Your task to perform on an android device: stop showing notifications on the lock screen Image 0: 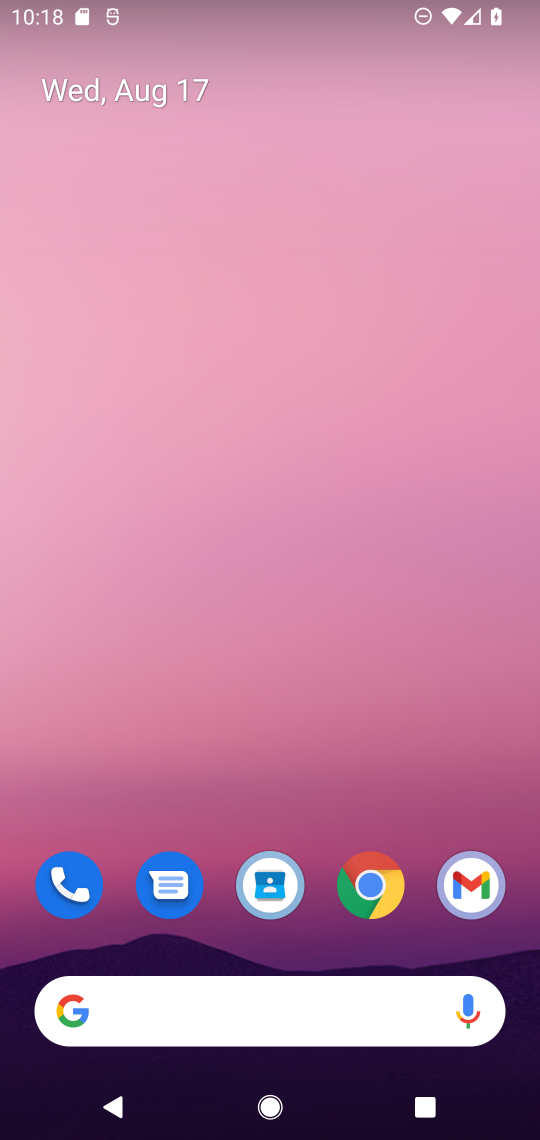
Step 0: drag from (409, 947) to (386, 135)
Your task to perform on an android device: stop showing notifications on the lock screen Image 1: 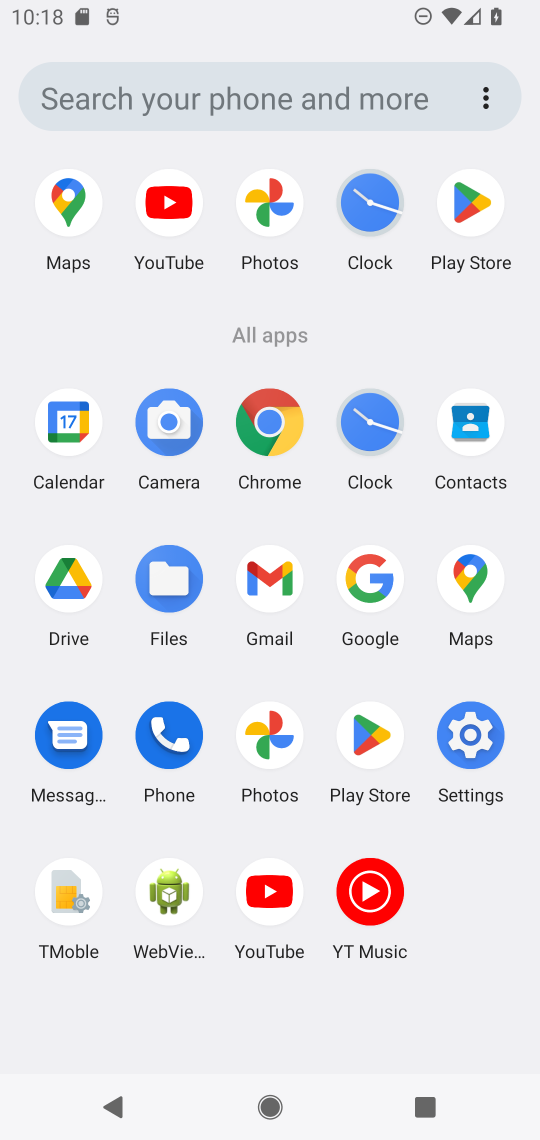
Step 1: click (468, 740)
Your task to perform on an android device: stop showing notifications on the lock screen Image 2: 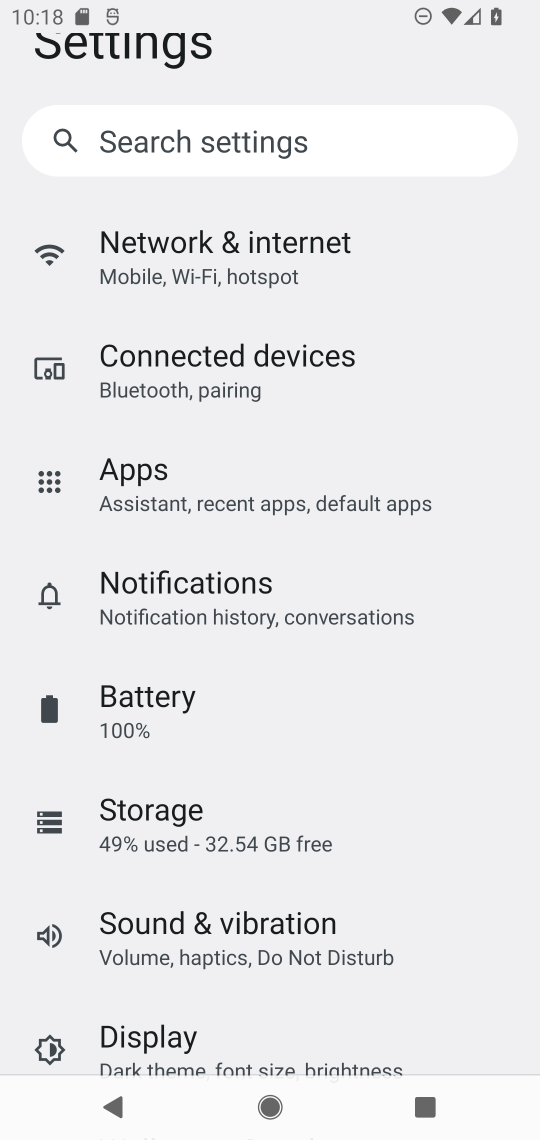
Step 2: click (198, 596)
Your task to perform on an android device: stop showing notifications on the lock screen Image 3: 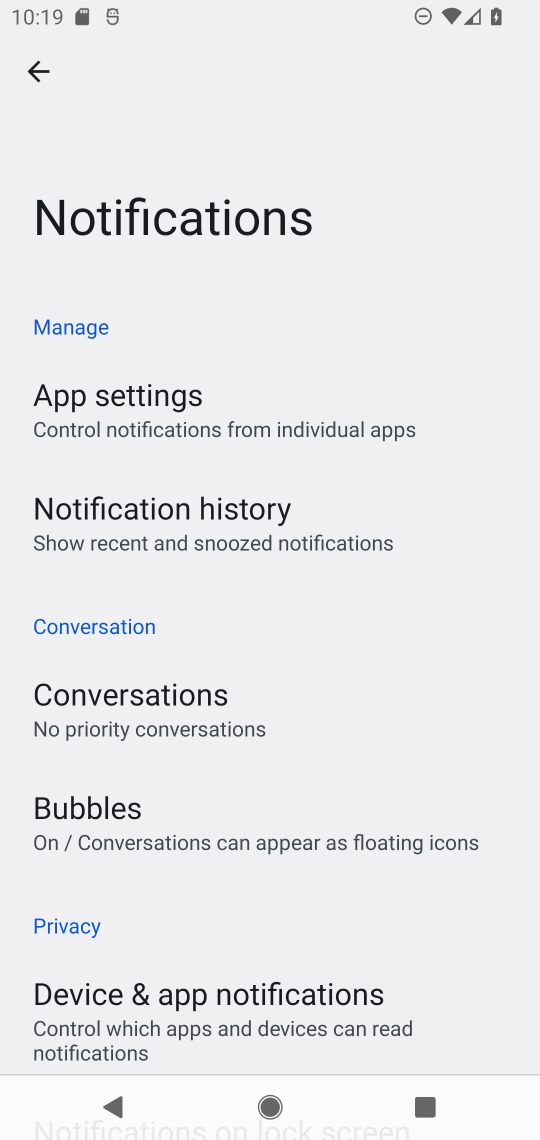
Step 3: drag from (303, 917) to (289, 246)
Your task to perform on an android device: stop showing notifications on the lock screen Image 4: 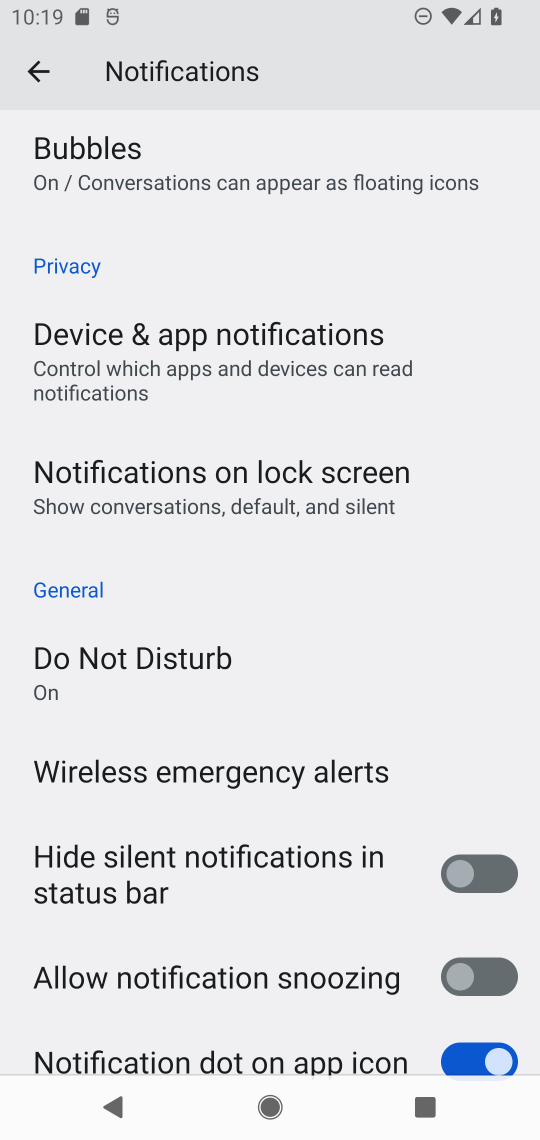
Step 4: click (207, 495)
Your task to perform on an android device: stop showing notifications on the lock screen Image 5: 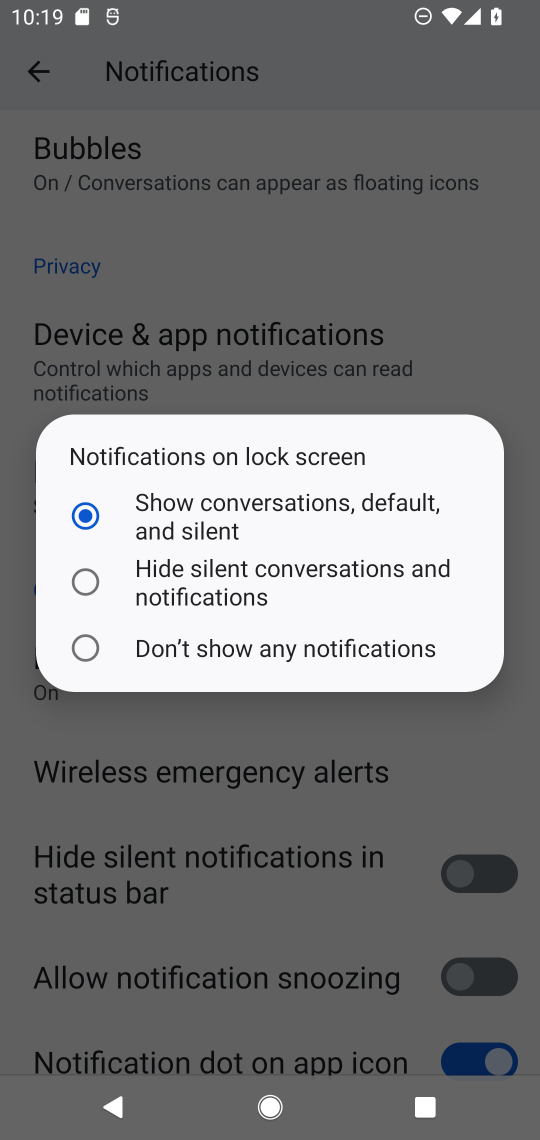
Step 5: click (83, 657)
Your task to perform on an android device: stop showing notifications on the lock screen Image 6: 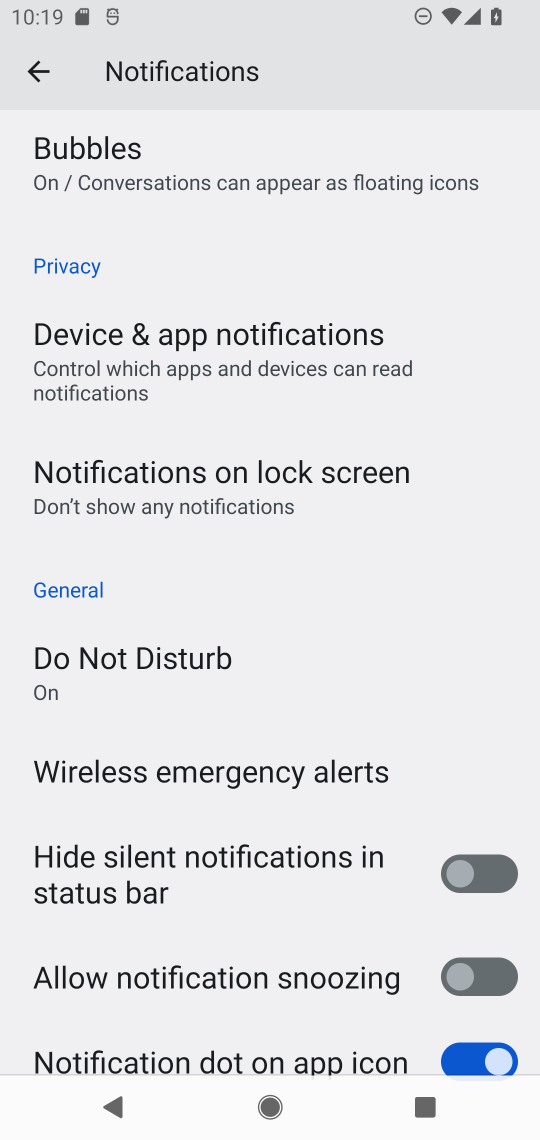
Step 6: task complete